Your task to perform on an android device: Search for vegetarian restaurants on Maps Image 0: 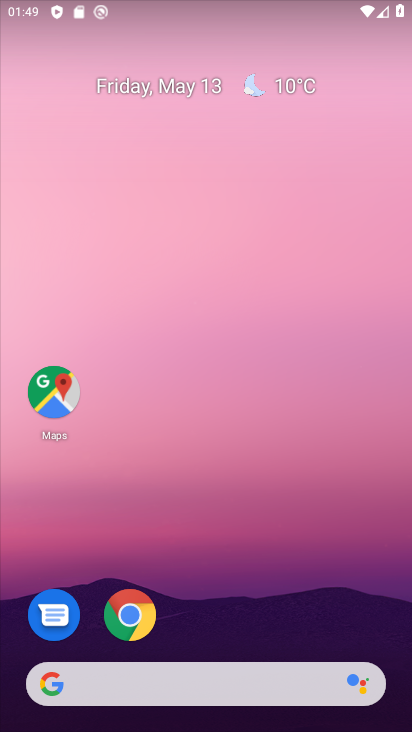
Step 0: click (52, 396)
Your task to perform on an android device: Search for vegetarian restaurants on Maps Image 1: 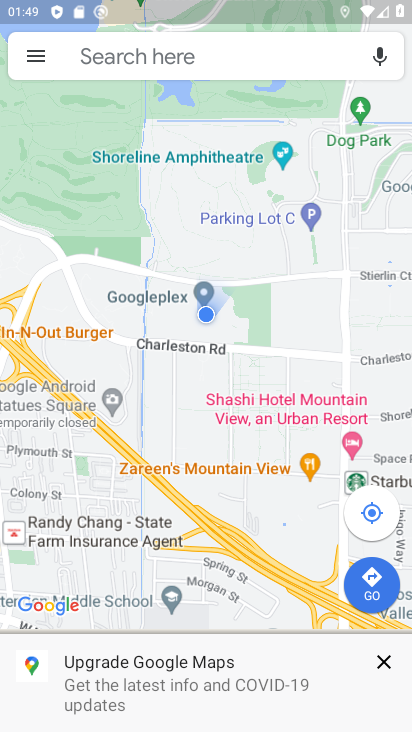
Step 1: click (172, 57)
Your task to perform on an android device: Search for vegetarian restaurants on Maps Image 2: 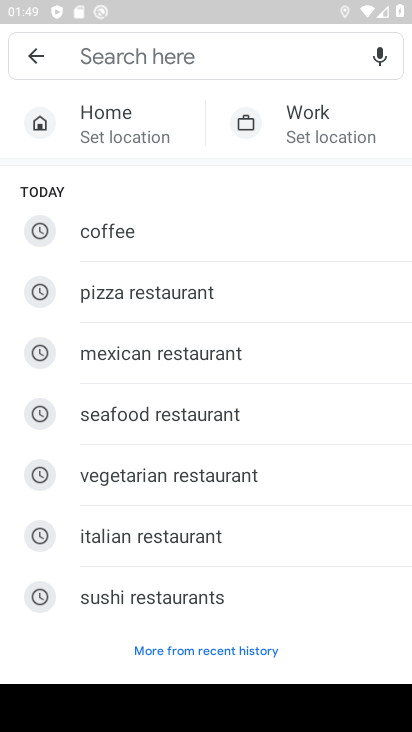
Step 2: click (123, 481)
Your task to perform on an android device: Search for vegetarian restaurants on Maps Image 3: 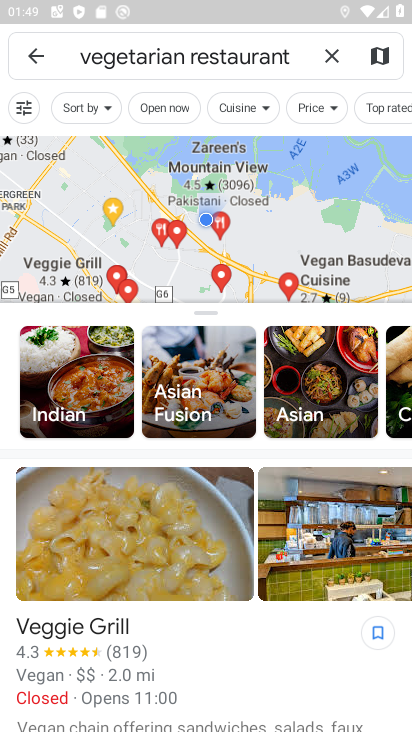
Step 3: task complete